Your task to perform on an android device: toggle location history Image 0: 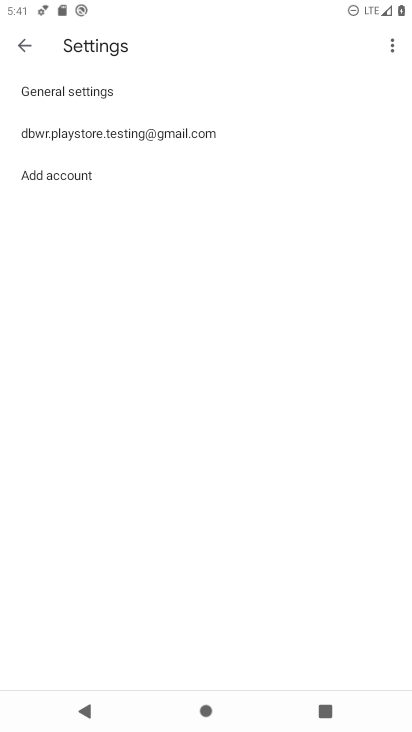
Step 0: press home button
Your task to perform on an android device: toggle location history Image 1: 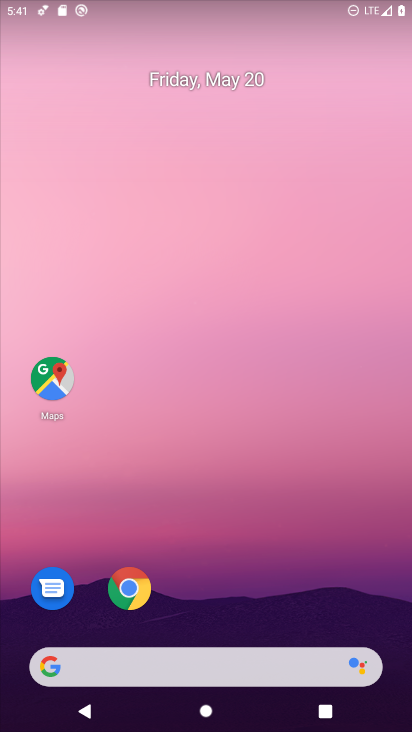
Step 1: drag from (210, 607) to (241, 183)
Your task to perform on an android device: toggle location history Image 2: 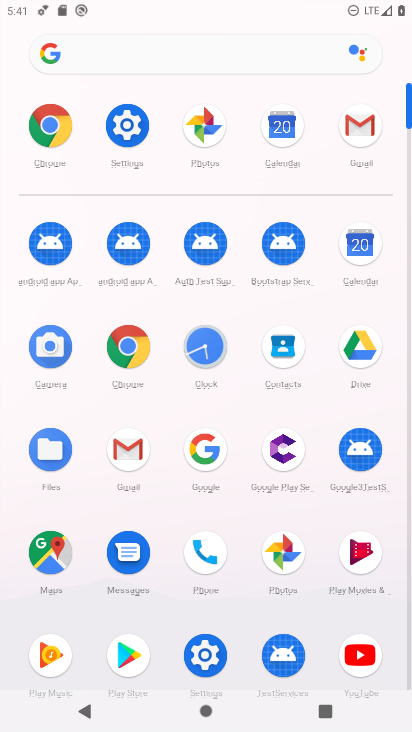
Step 2: click (122, 137)
Your task to perform on an android device: toggle location history Image 3: 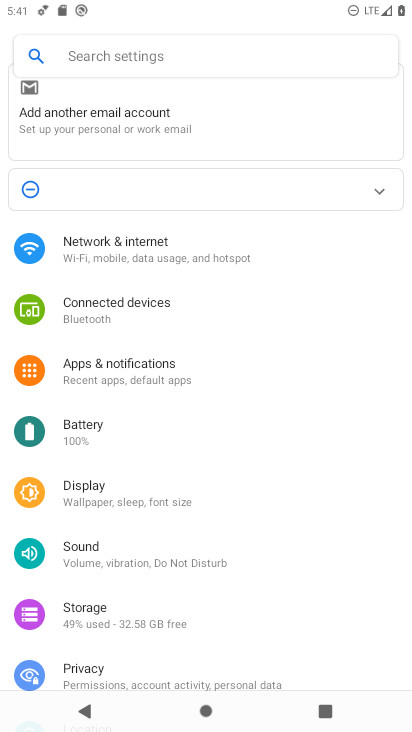
Step 3: drag from (138, 657) to (187, 347)
Your task to perform on an android device: toggle location history Image 4: 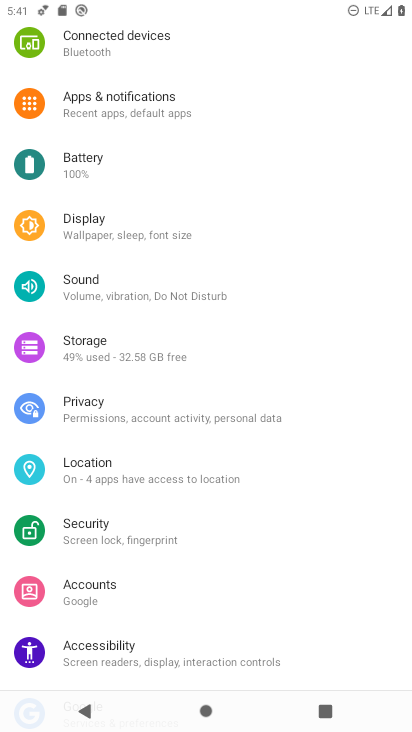
Step 4: click (121, 485)
Your task to perform on an android device: toggle location history Image 5: 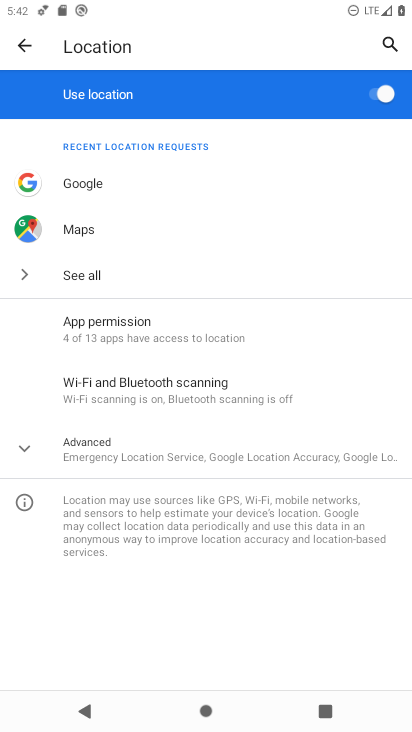
Step 5: click (133, 437)
Your task to perform on an android device: toggle location history Image 6: 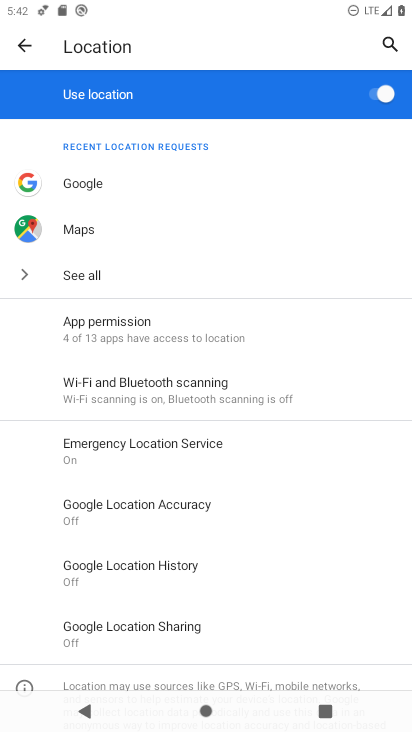
Step 6: click (156, 587)
Your task to perform on an android device: toggle location history Image 7: 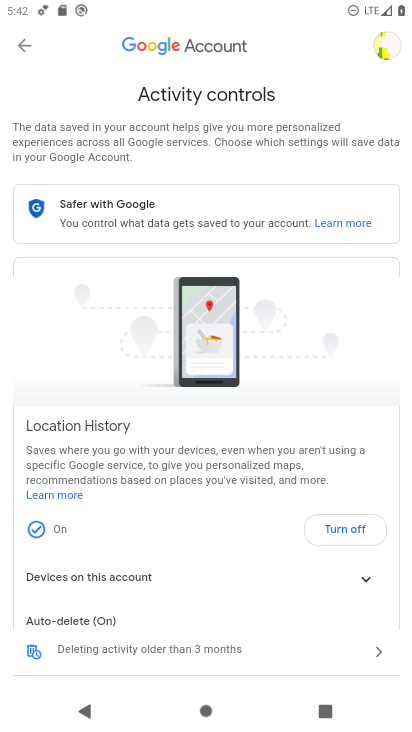
Step 7: click (350, 539)
Your task to perform on an android device: toggle location history Image 8: 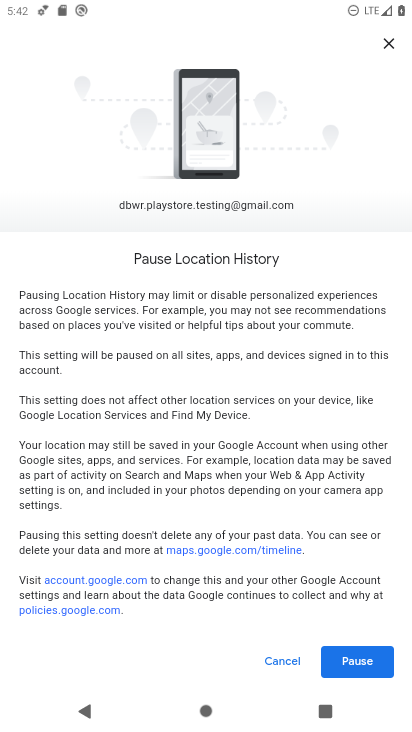
Step 8: click (282, 324)
Your task to perform on an android device: toggle location history Image 9: 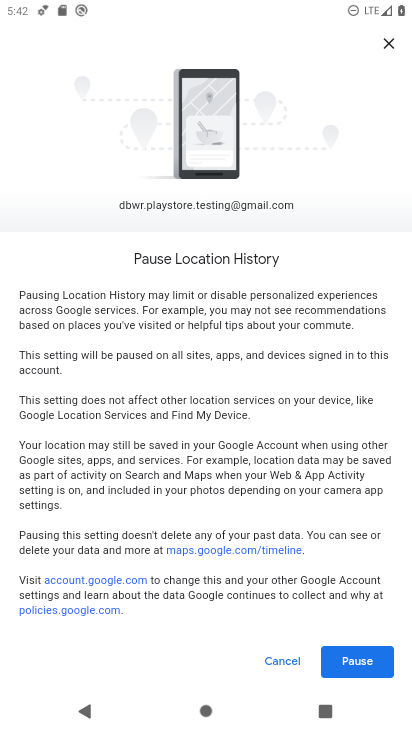
Step 9: click (340, 670)
Your task to perform on an android device: toggle location history Image 10: 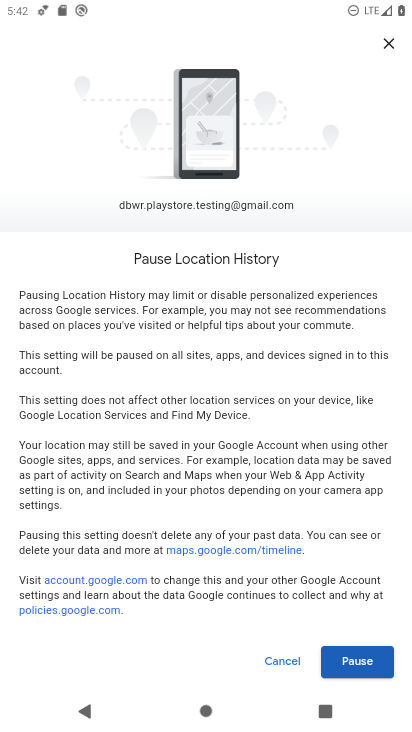
Step 10: click (340, 670)
Your task to perform on an android device: toggle location history Image 11: 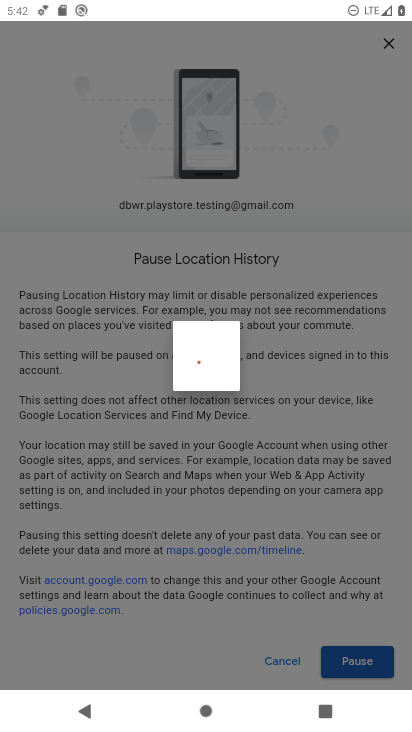
Step 11: click (371, 666)
Your task to perform on an android device: toggle location history Image 12: 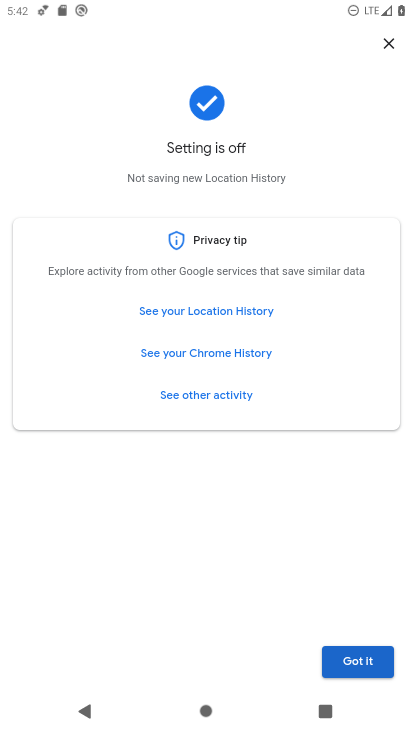
Step 12: click (371, 666)
Your task to perform on an android device: toggle location history Image 13: 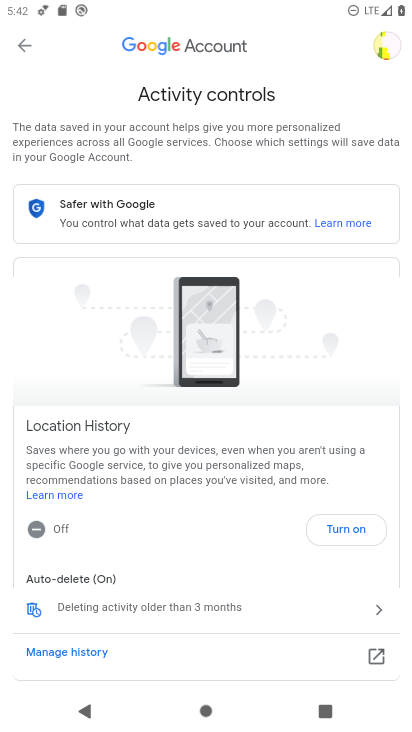
Step 13: click (349, 666)
Your task to perform on an android device: toggle location history Image 14: 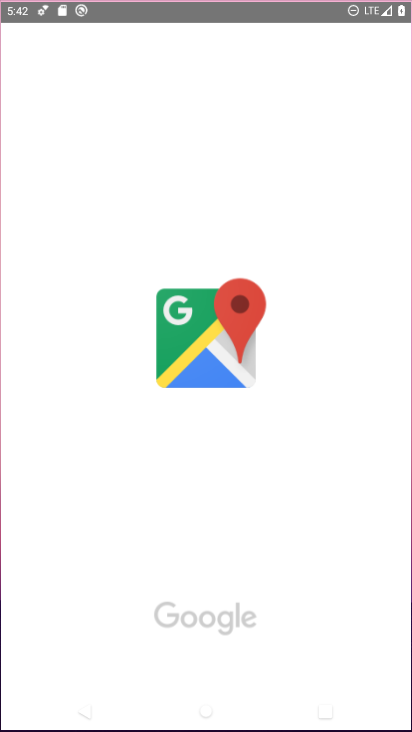
Step 14: task complete